Your task to perform on an android device: toggle priority inbox in the gmail app Image 0: 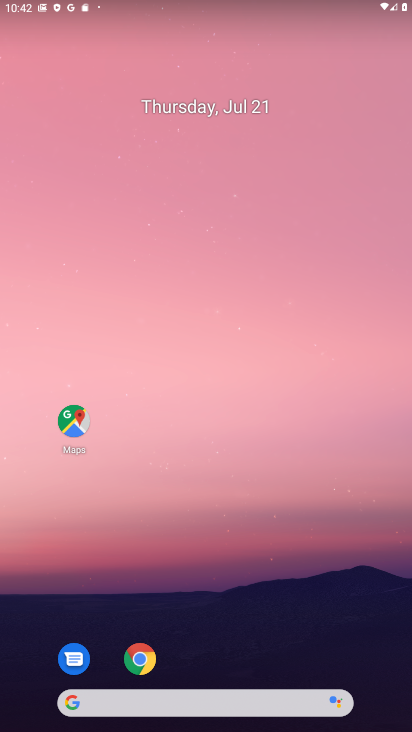
Step 0: drag from (210, 703) to (210, 186)
Your task to perform on an android device: toggle priority inbox in the gmail app Image 1: 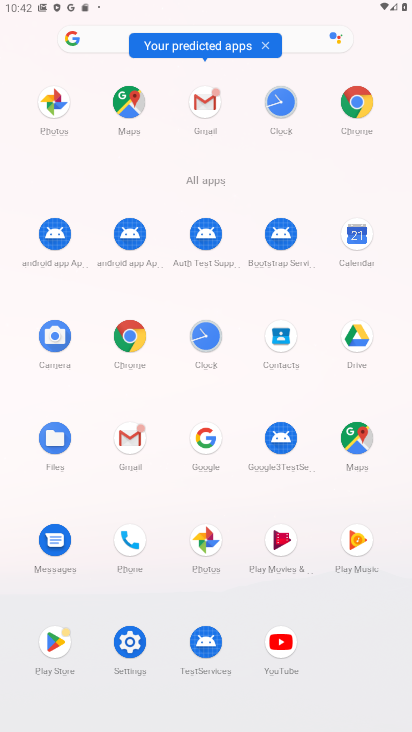
Step 1: click (204, 100)
Your task to perform on an android device: toggle priority inbox in the gmail app Image 2: 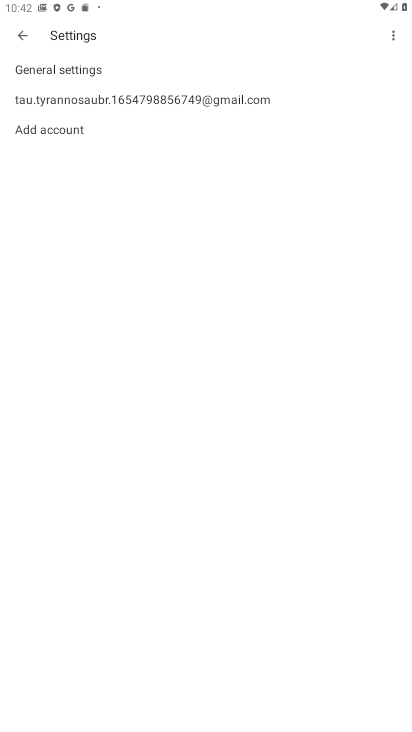
Step 2: click (205, 101)
Your task to perform on an android device: toggle priority inbox in the gmail app Image 3: 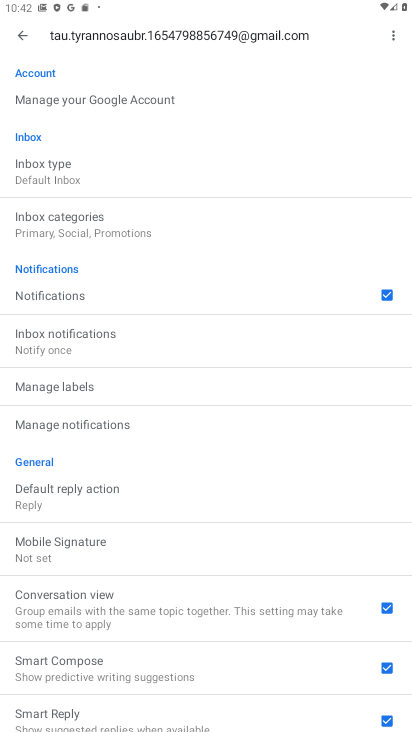
Step 3: click (69, 181)
Your task to perform on an android device: toggle priority inbox in the gmail app Image 4: 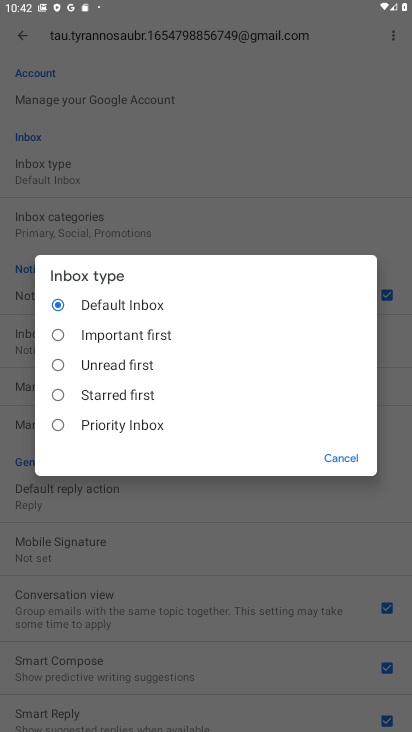
Step 4: click (57, 426)
Your task to perform on an android device: toggle priority inbox in the gmail app Image 5: 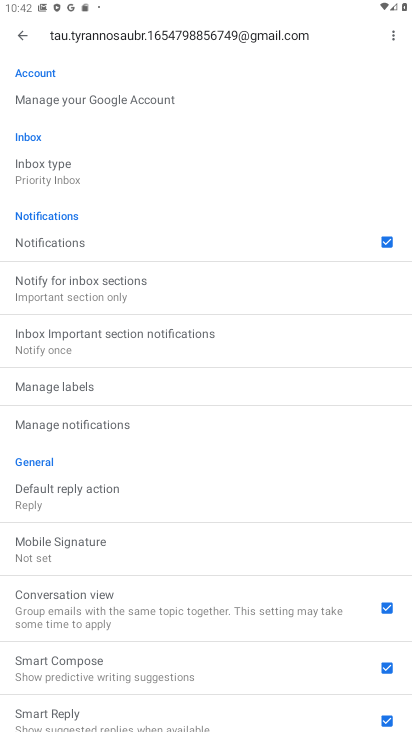
Step 5: task complete